Your task to perform on an android device: Search for Italian restaurants on Maps Image 0: 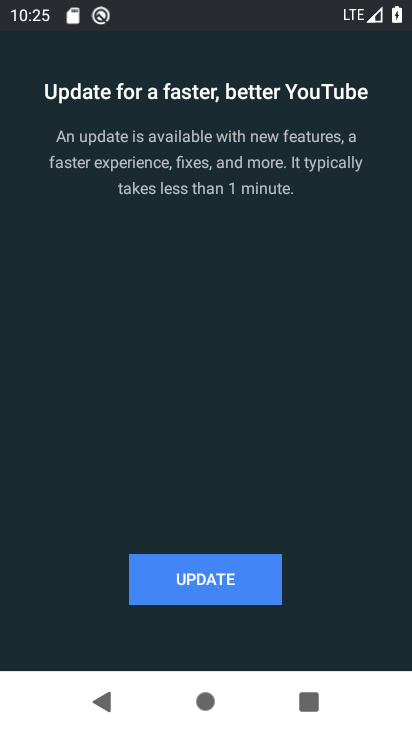
Step 0: press home button
Your task to perform on an android device: Search for Italian restaurants on Maps Image 1: 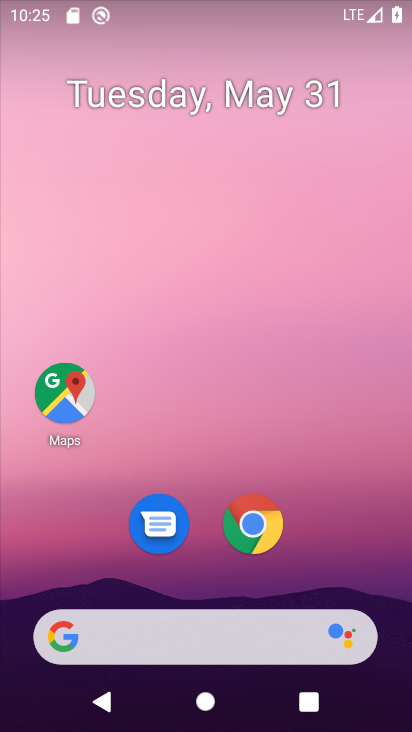
Step 1: click (54, 395)
Your task to perform on an android device: Search for Italian restaurants on Maps Image 2: 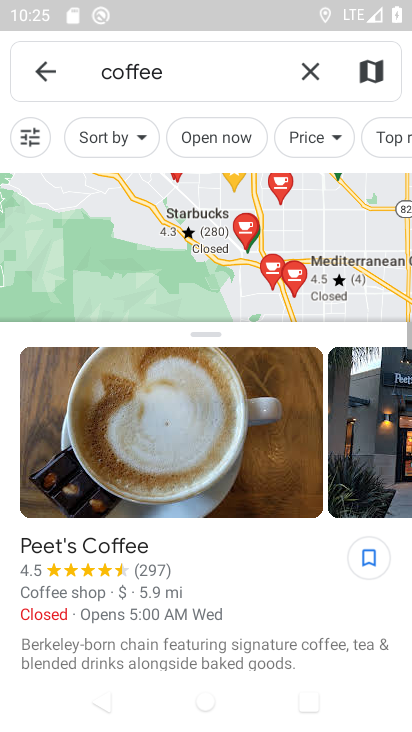
Step 2: click (309, 70)
Your task to perform on an android device: Search for Italian restaurants on Maps Image 3: 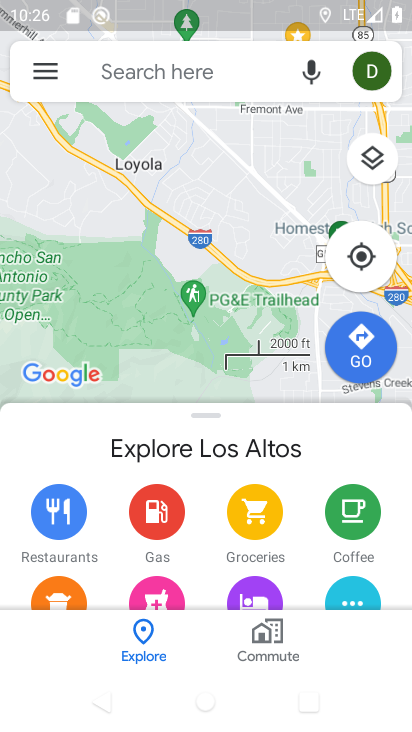
Step 3: click (224, 73)
Your task to perform on an android device: Search for Italian restaurants on Maps Image 4: 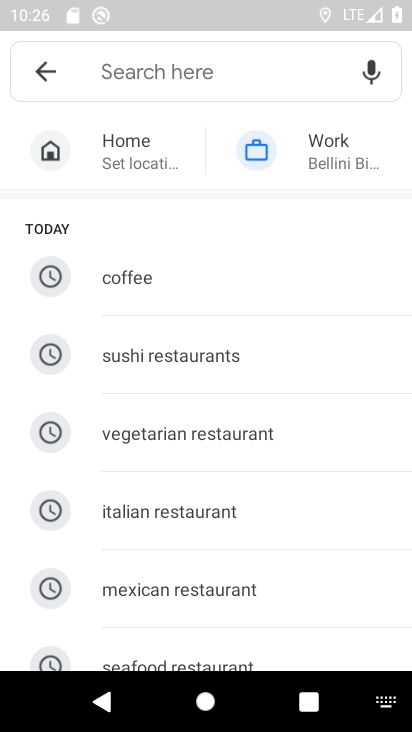
Step 4: click (192, 510)
Your task to perform on an android device: Search for Italian restaurants on Maps Image 5: 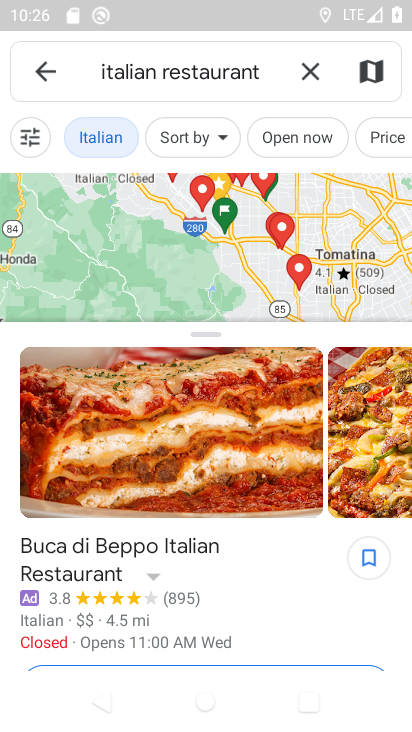
Step 5: task complete